Your task to perform on an android device: turn on location history Image 0: 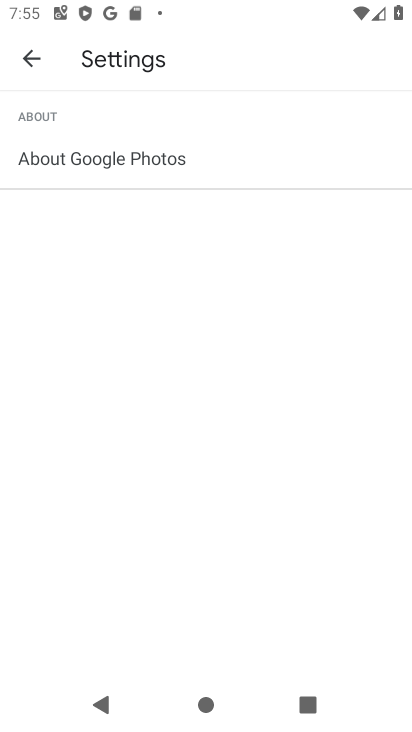
Step 0: press home button
Your task to perform on an android device: turn on location history Image 1: 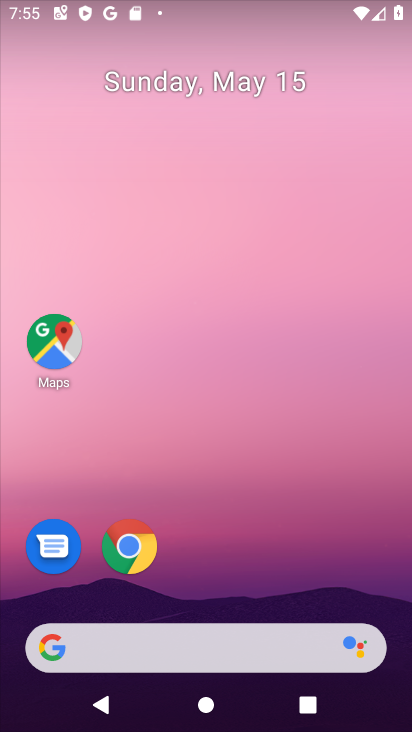
Step 1: drag from (189, 559) to (245, 37)
Your task to perform on an android device: turn on location history Image 2: 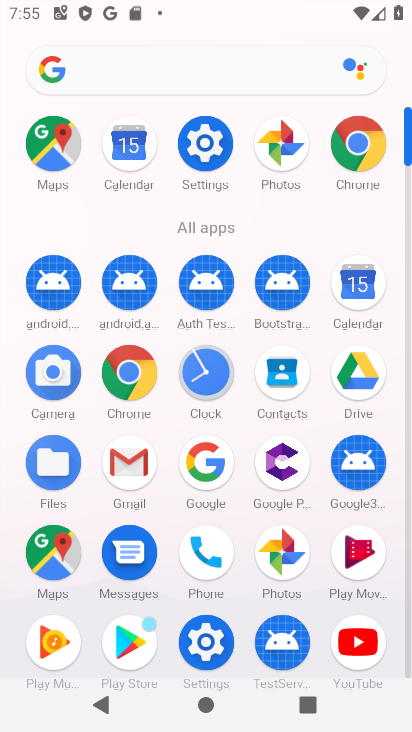
Step 2: click (215, 144)
Your task to perform on an android device: turn on location history Image 3: 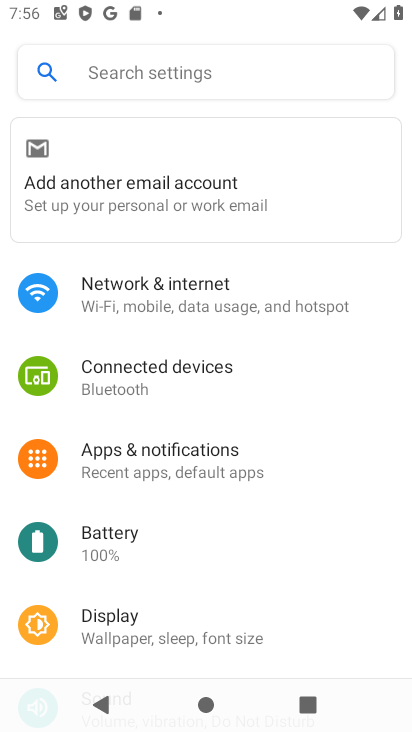
Step 3: drag from (187, 511) to (239, 99)
Your task to perform on an android device: turn on location history Image 4: 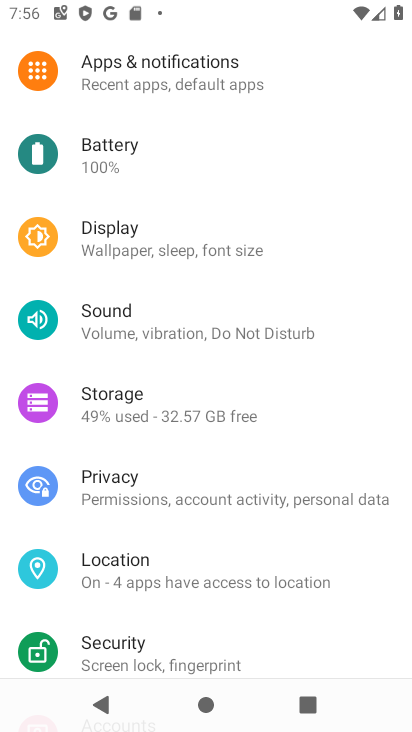
Step 4: click (157, 563)
Your task to perform on an android device: turn on location history Image 5: 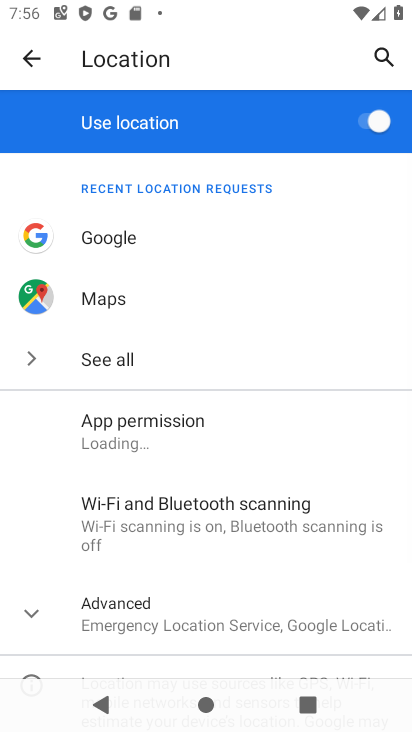
Step 5: drag from (212, 541) to (265, 357)
Your task to perform on an android device: turn on location history Image 6: 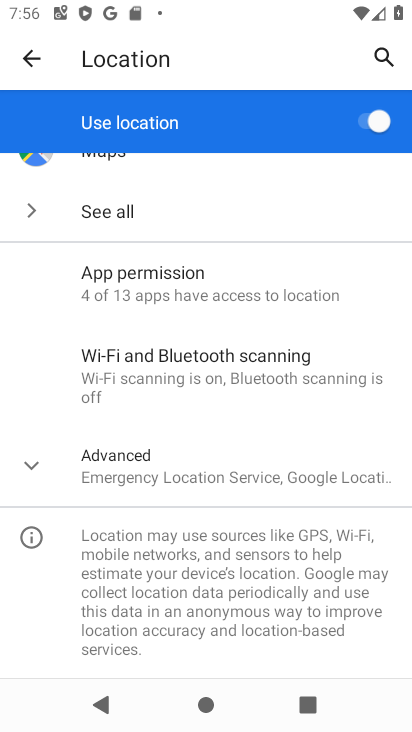
Step 6: click (30, 461)
Your task to perform on an android device: turn on location history Image 7: 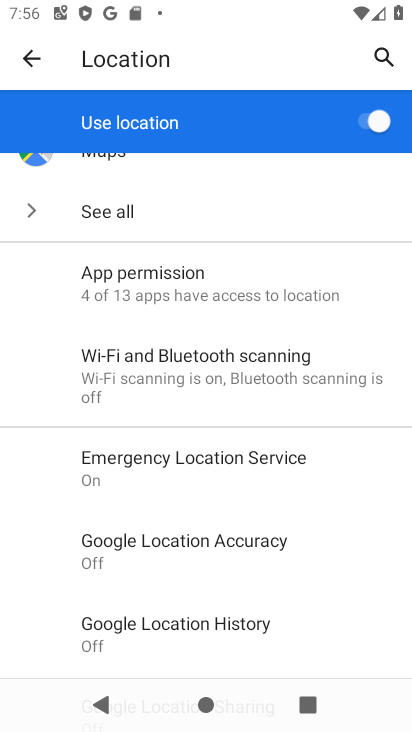
Step 7: click (193, 622)
Your task to perform on an android device: turn on location history Image 8: 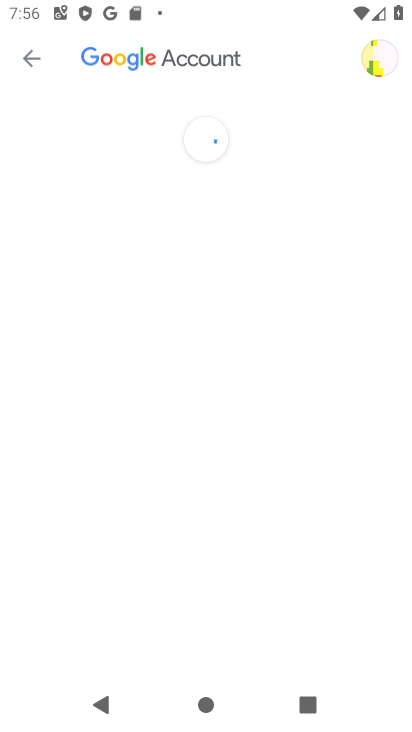
Step 8: task complete